Your task to perform on an android device: Open CNN.com Image 0: 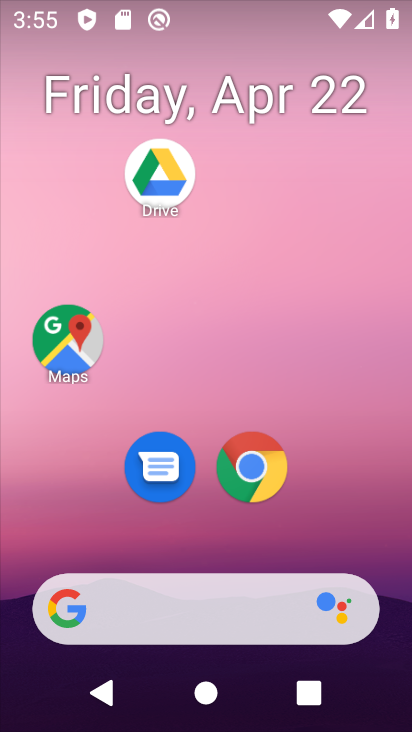
Step 0: click (248, 462)
Your task to perform on an android device: Open CNN.com Image 1: 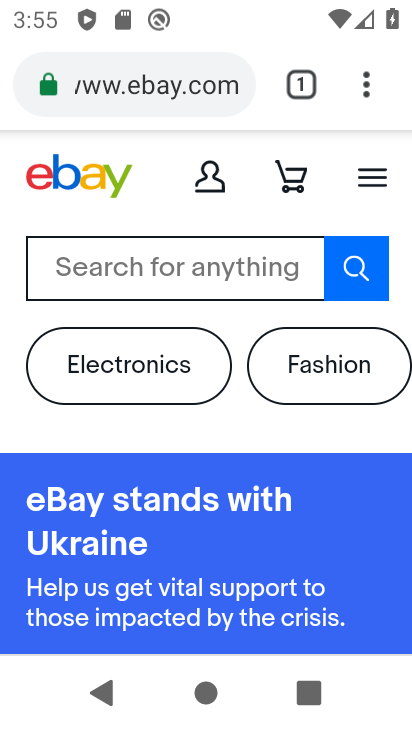
Step 1: click (304, 77)
Your task to perform on an android device: Open CNN.com Image 2: 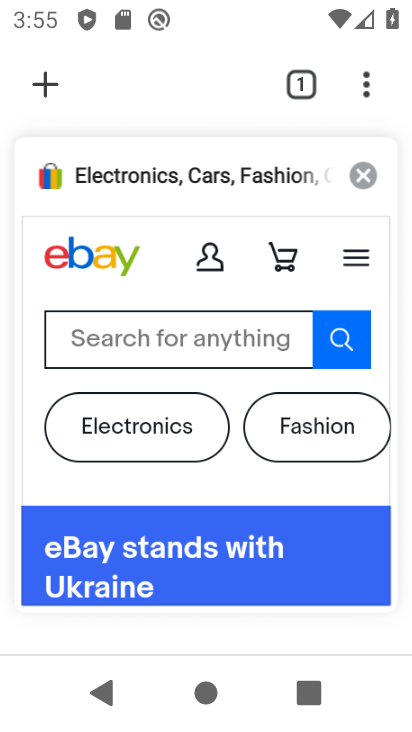
Step 2: click (47, 80)
Your task to perform on an android device: Open CNN.com Image 3: 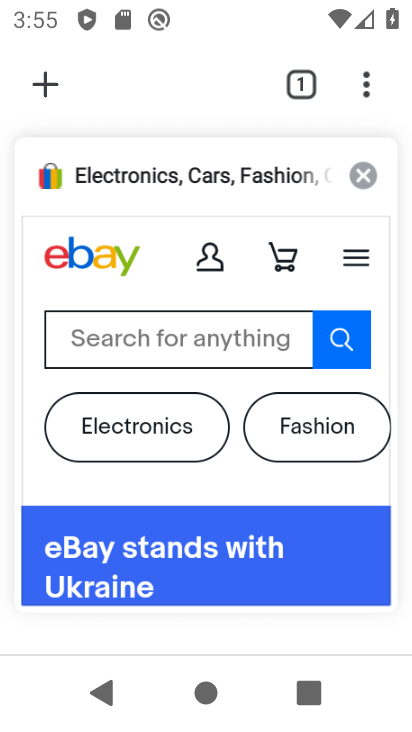
Step 3: click (46, 86)
Your task to perform on an android device: Open CNN.com Image 4: 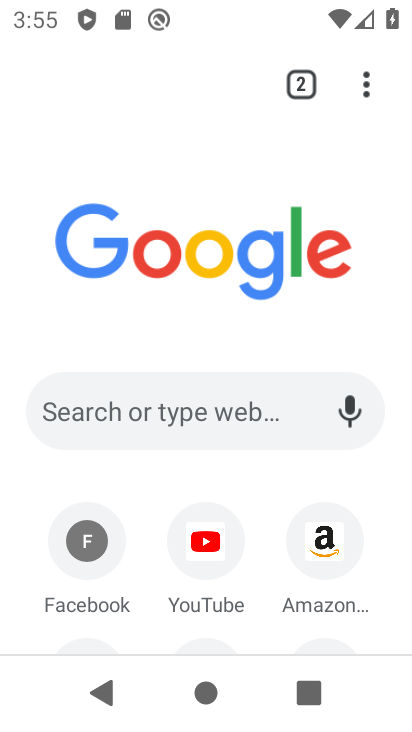
Step 4: click (160, 402)
Your task to perform on an android device: Open CNN.com Image 5: 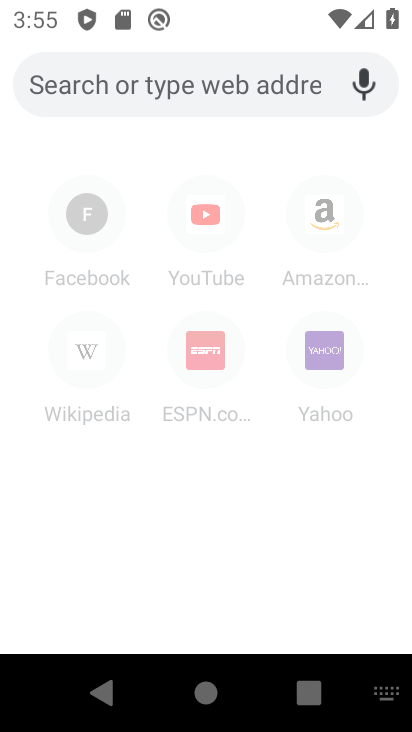
Step 5: type "cnn"
Your task to perform on an android device: Open CNN.com Image 6: 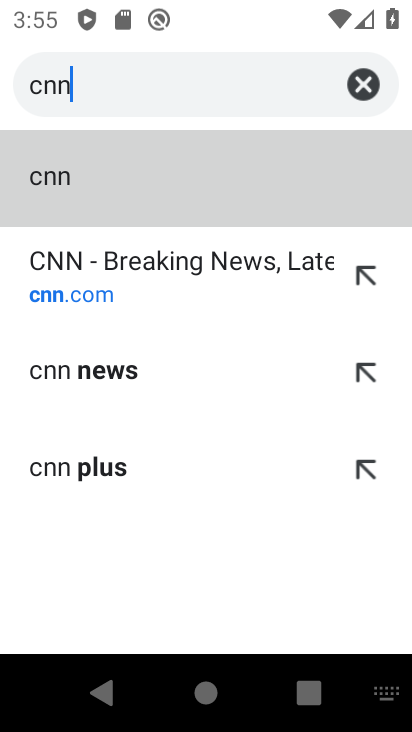
Step 6: click (130, 283)
Your task to perform on an android device: Open CNN.com Image 7: 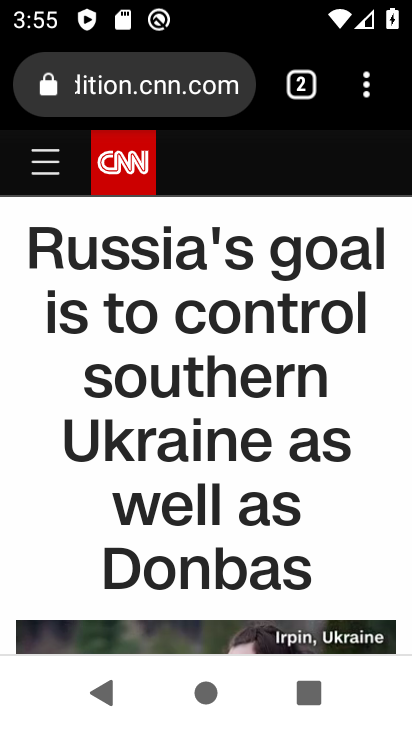
Step 7: drag from (194, 605) to (187, 251)
Your task to perform on an android device: Open CNN.com Image 8: 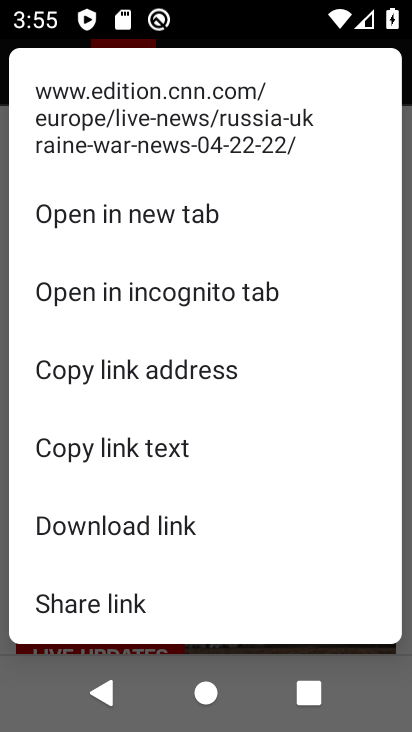
Step 8: click (86, 691)
Your task to perform on an android device: Open CNN.com Image 9: 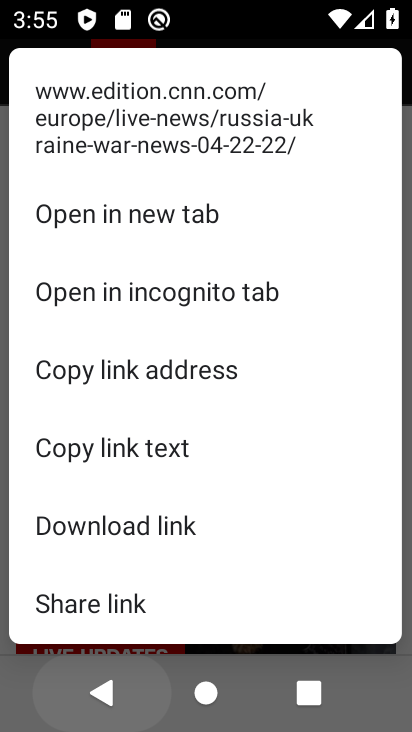
Step 9: task complete